Your task to perform on an android device: Do I have any events today? Image 0: 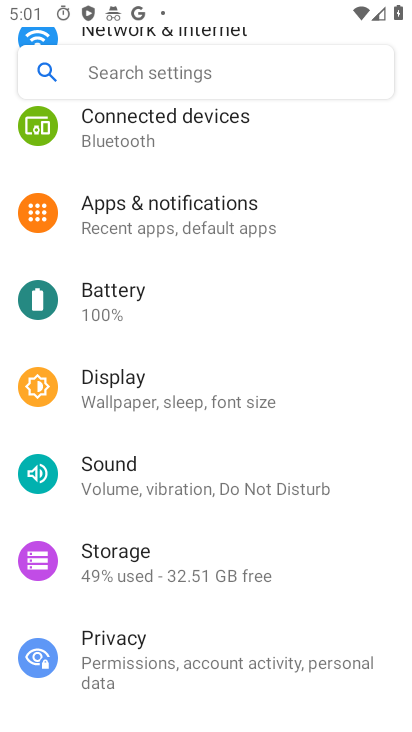
Step 0: press home button
Your task to perform on an android device: Do I have any events today? Image 1: 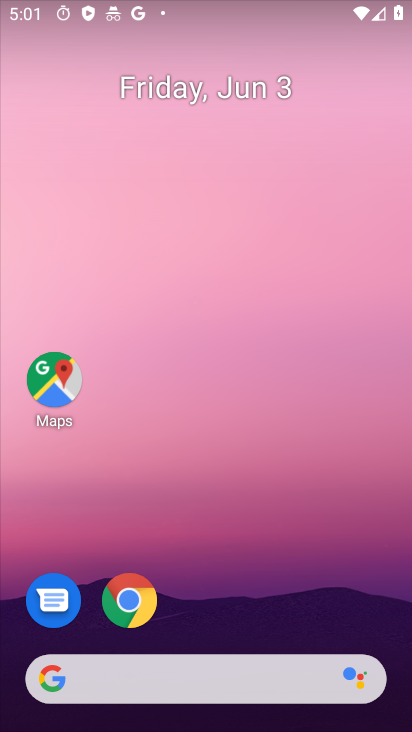
Step 1: drag from (391, 695) to (345, 152)
Your task to perform on an android device: Do I have any events today? Image 2: 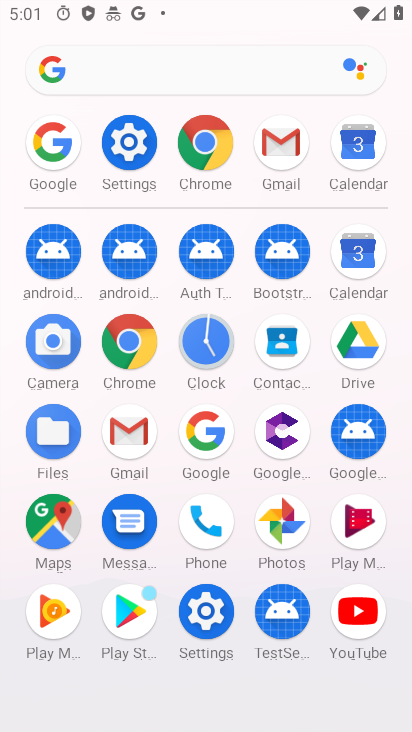
Step 2: click (358, 256)
Your task to perform on an android device: Do I have any events today? Image 3: 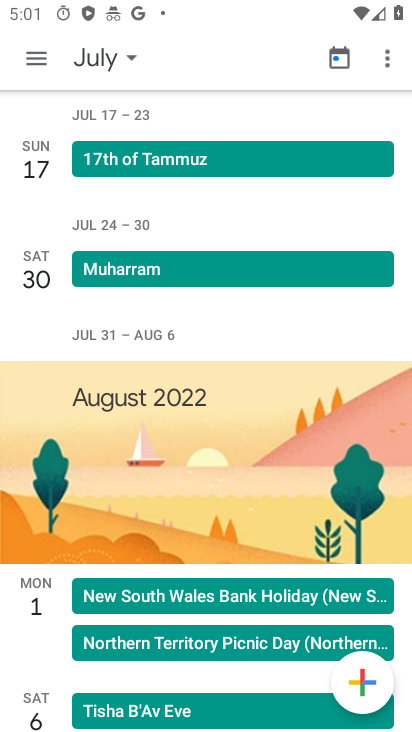
Step 3: click (39, 51)
Your task to perform on an android device: Do I have any events today? Image 4: 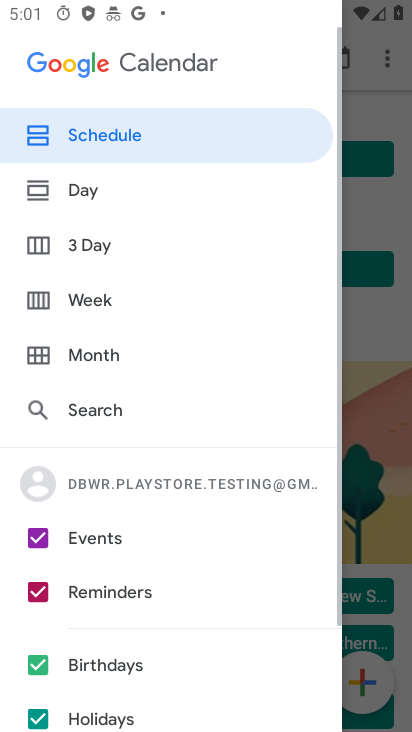
Step 4: click (84, 188)
Your task to perform on an android device: Do I have any events today? Image 5: 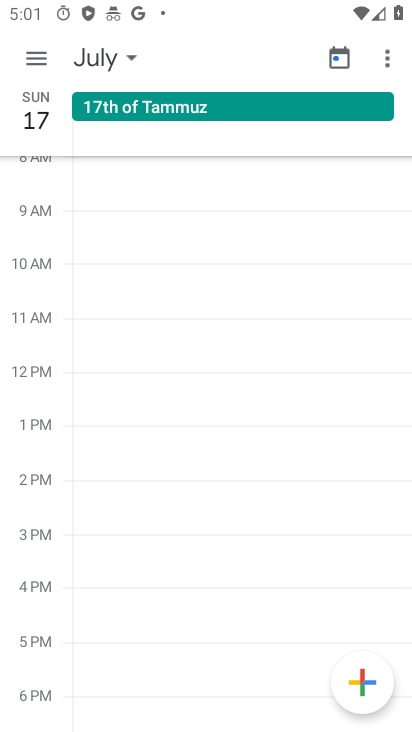
Step 5: click (132, 47)
Your task to perform on an android device: Do I have any events today? Image 6: 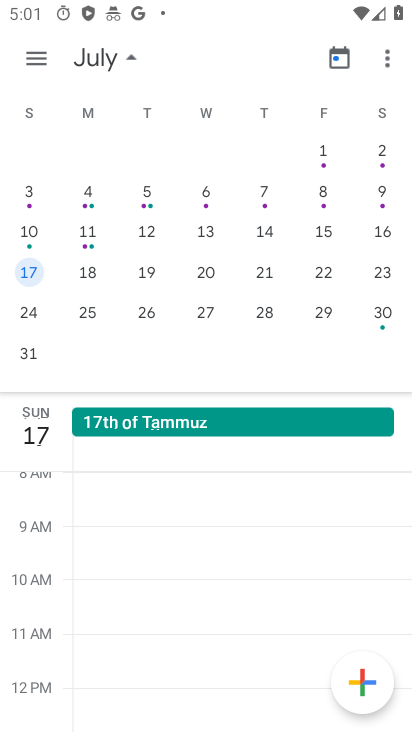
Step 6: drag from (42, 152) to (343, 178)
Your task to perform on an android device: Do I have any events today? Image 7: 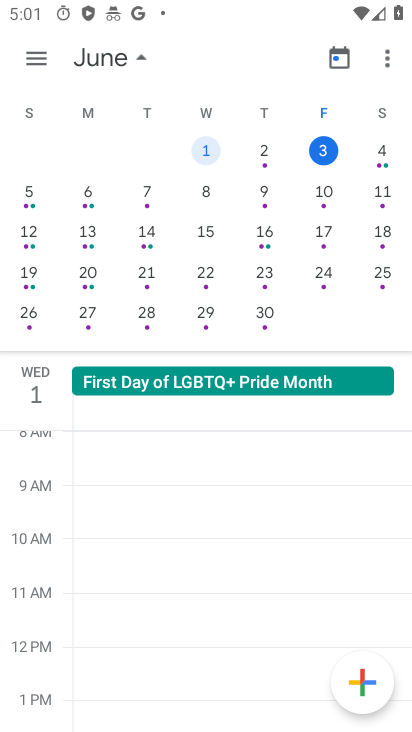
Step 7: click (210, 152)
Your task to perform on an android device: Do I have any events today? Image 8: 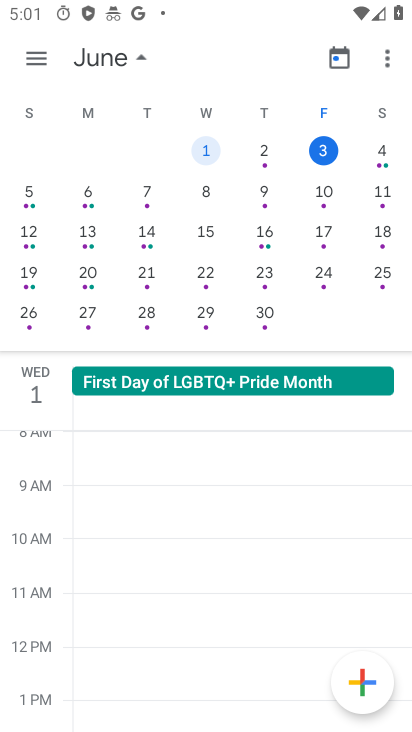
Step 8: click (319, 150)
Your task to perform on an android device: Do I have any events today? Image 9: 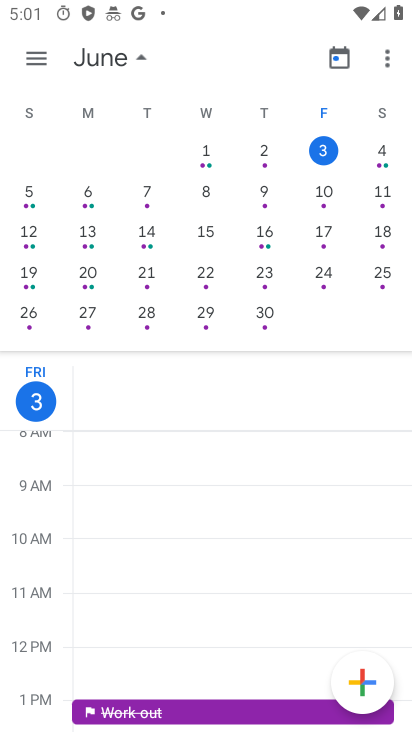
Step 9: click (44, 50)
Your task to perform on an android device: Do I have any events today? Image 10: 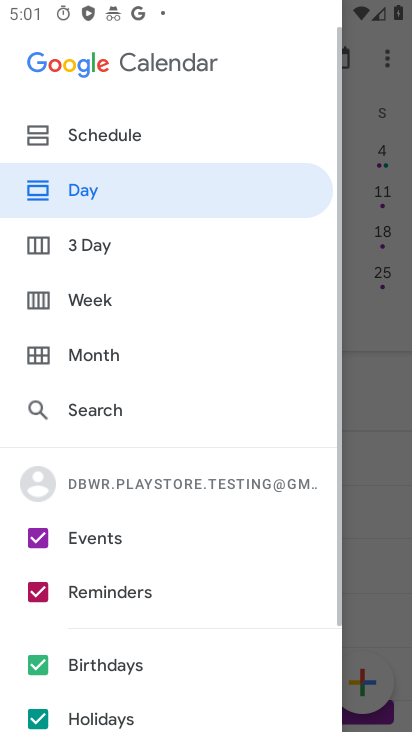
Step 10: click (119, 130)
Your task to perform on an android device: Do I have any events today? Image 11: 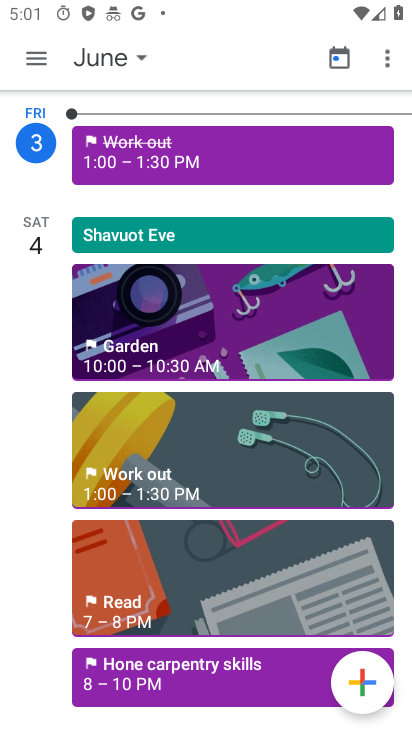
Step 11: task complete